Your task to perform on an android device: toggle pop-ups in chrome Image 0: 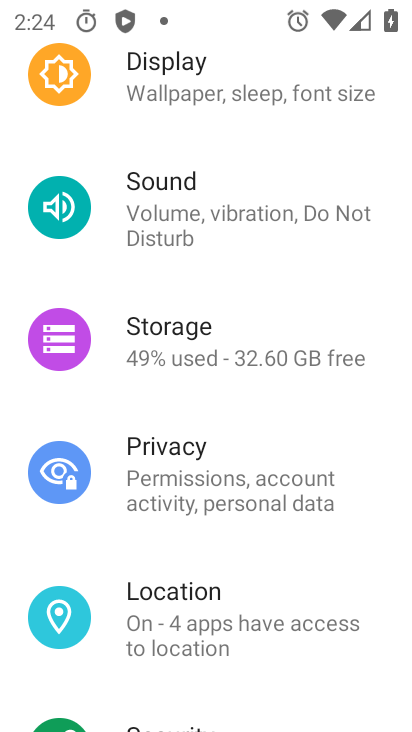
Step 0: press home button
Your task to perform on an android device: toggle pop-ups in chrome Image 1: 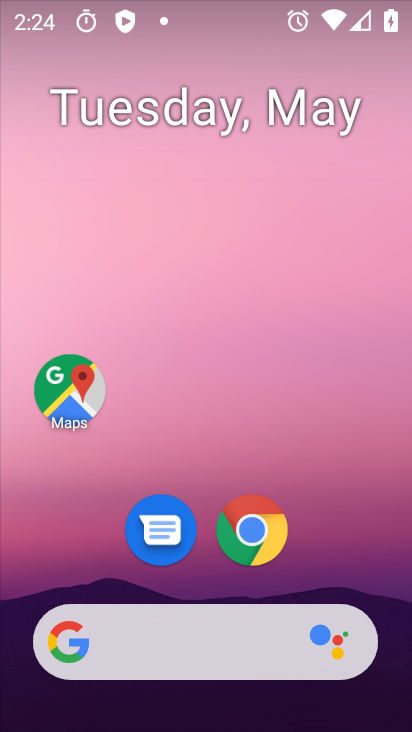
Step 1: drag from (234, 587) to (155, 14)
Your task to perform on an android device: toggle pop-ups in chrome Image 2: 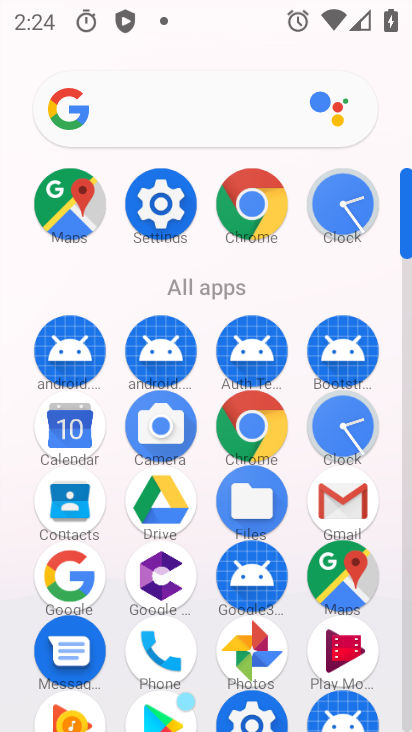
Step 2: click (256, 436)
Your task to perform on an android device: toggle pop-ups in chrome Image 3: 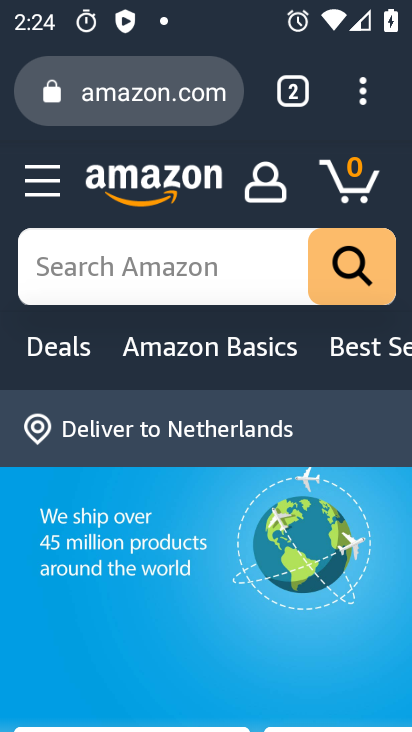
Step 3: click (353, 98)
Your task to perform on an android device: toggle pop-ups in chrome Image 4: 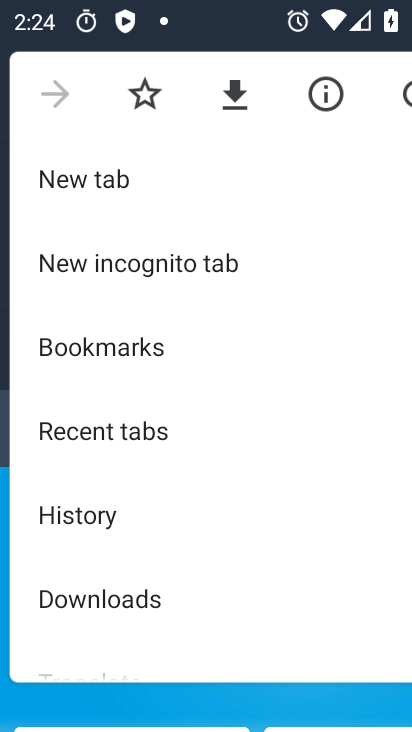
Step 4: drag from (195, 644) to (123, 163)
Your task to perform on an android device: toggle pop-ups in chrome Image 5: 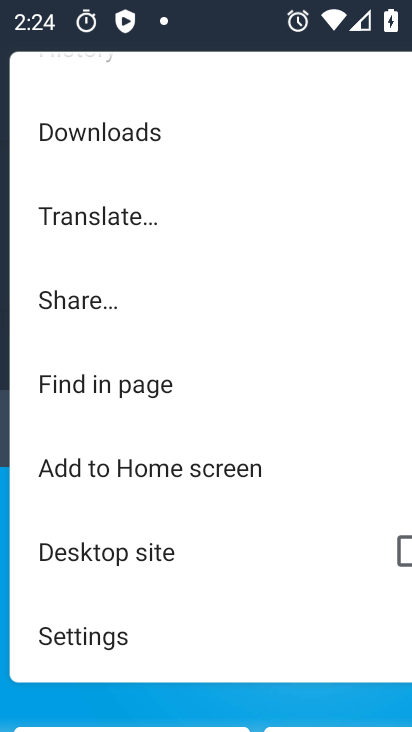
Step 5: click (115, 639)
Your task to perform on an android device: toggle pop-ups in chrome Image 6: 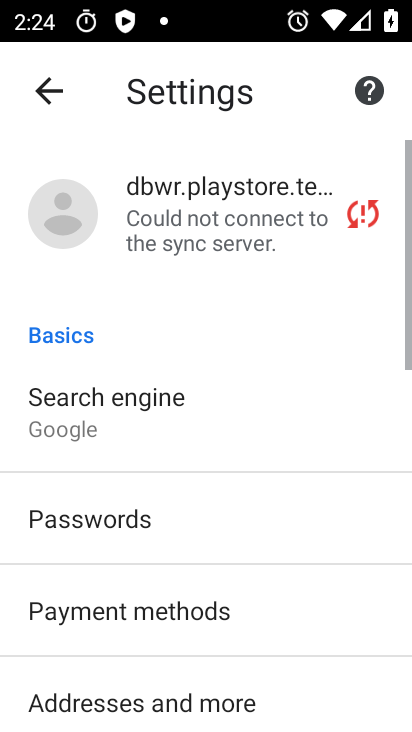
Step 6: drag from (132, 616) to (55, 144)
Your task to perform on an android device: toggle pop-ups in chrome Image 7: 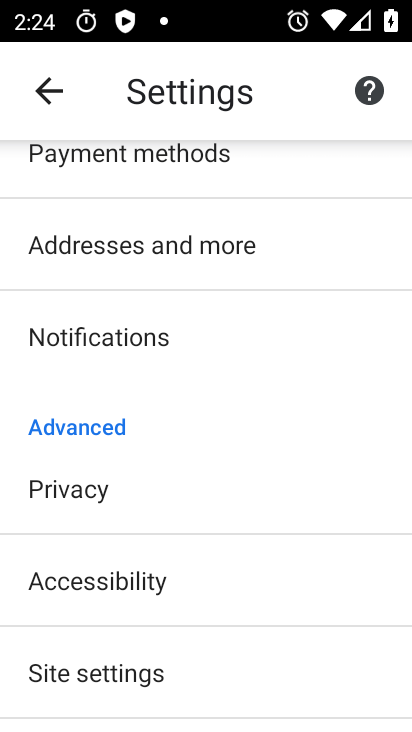
Step 7: drag from (114, 611) to (55, 189)
Your task to perform on an android device: toggle pop-ups in chrome Image 8: 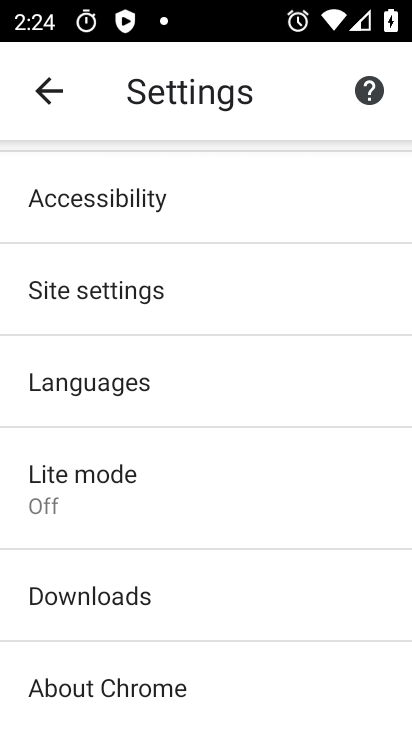
Step 8: drag from (240, 517) to (229, 385)
Your task to perform on an android device: toggle pop-ups in chrome Image 9: 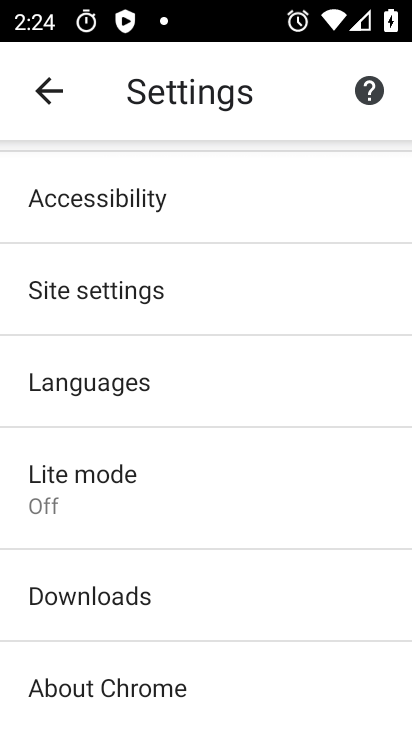
Step 9: click (123, 303)
Your task to perform on an android device: toggle pop-ups in chrome Image 10: 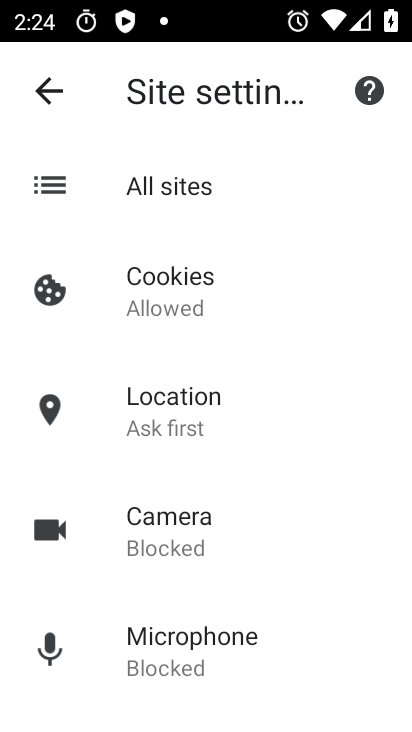
Step 10: drag from (248, 496) to (206, 157)
Your task to perform on an android device: toggle pop-ups in chrome Image 11: 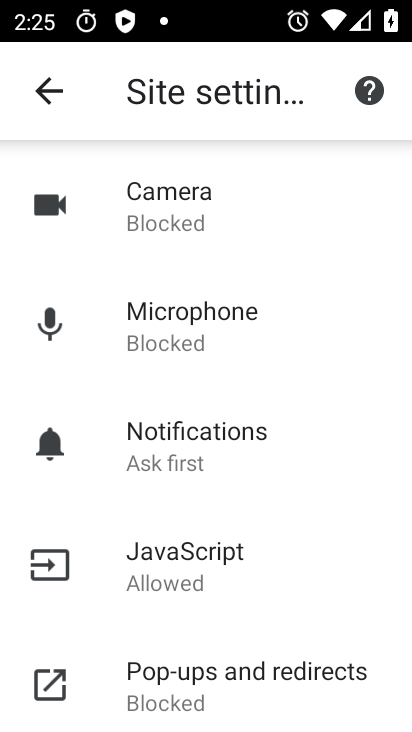
Step 11: click (214, 663)
Your task to perform on an android device: toggle pop-ups in chrome Image 12: 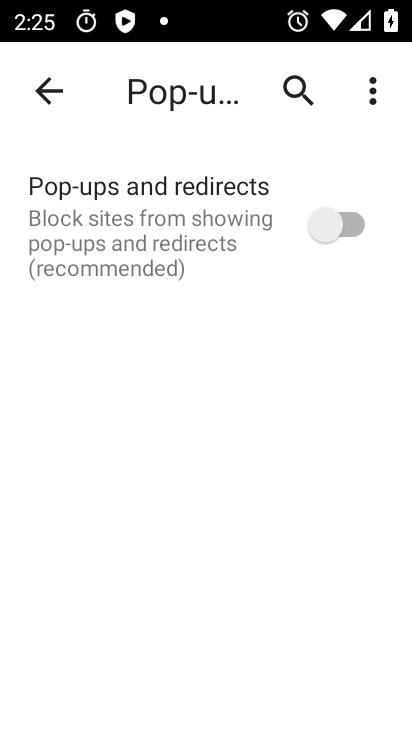
Step 12: click (319, 224)
Your task to perform on an android device: toggle pop-ups in chrome Image 13: 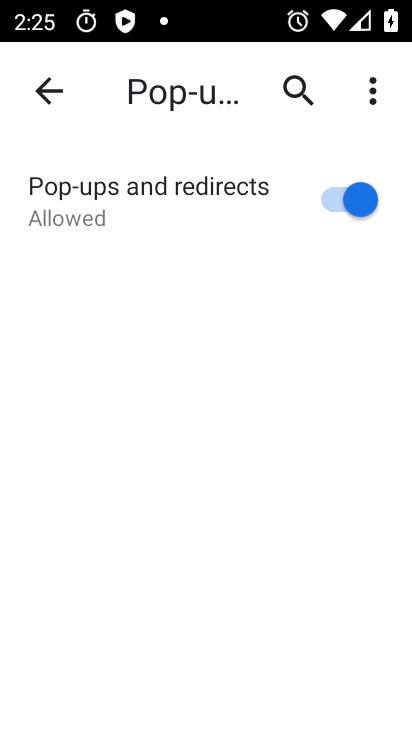
Step 13: task complete